Your task to perform on an android device: Open Google Chrome Image 0: 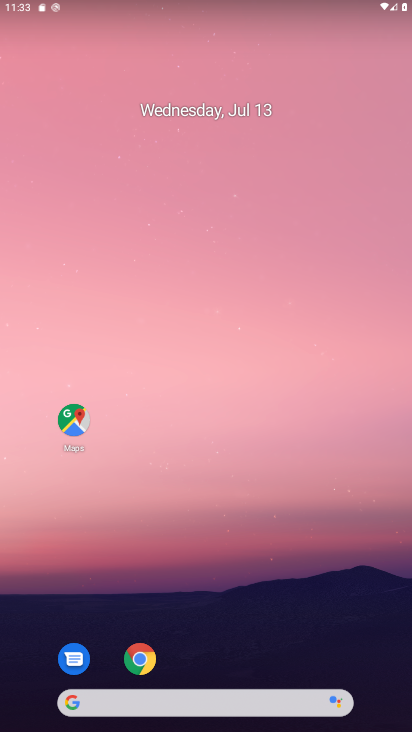
Step 0: click (140, 661)
Your task to perform on an android device: Open Google Chrome Image 1: 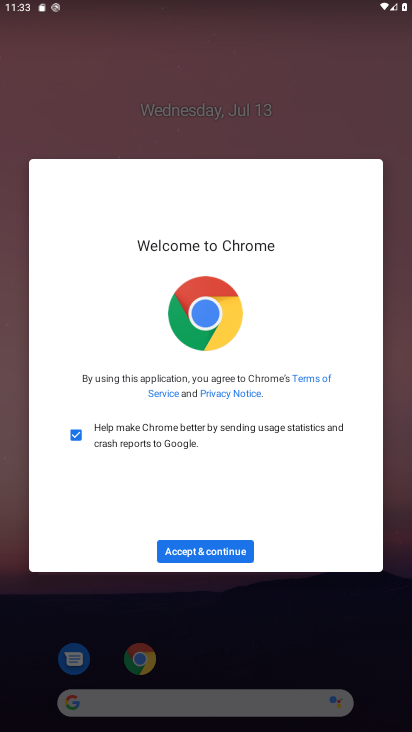
Step 1: click (225, 549)
Your task to perform on an android device: Open Google Chrome Image 2: 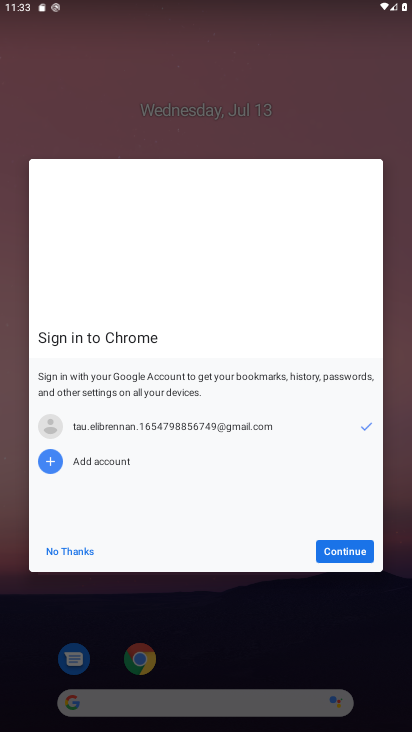
Step 2: click (348, 551)
Your task to perform on an android device: Open Google Chrome Image 3: 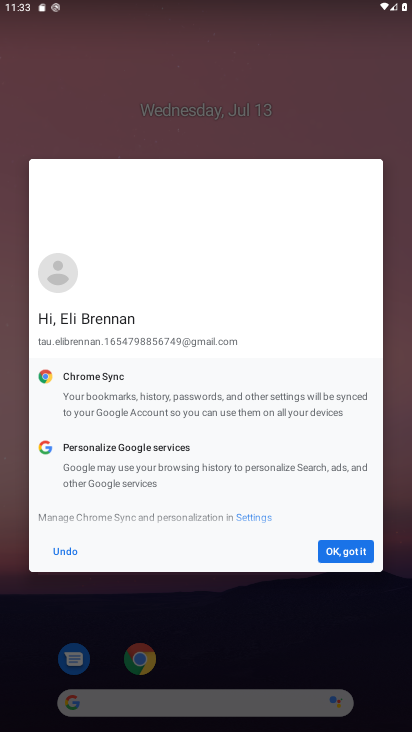
Step 3: click (348, 551)
Your task to perform on an android device: Open Google Chrome Image 4: 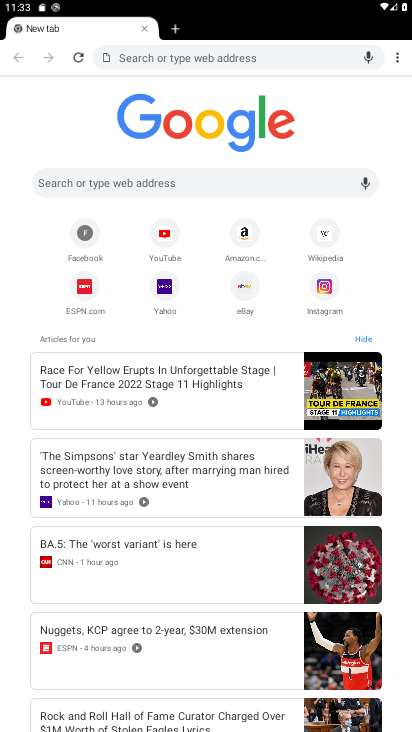
Step 4: task complete